Your task to perform on an android device: turn off notifications settings in the gmail app Image 0: 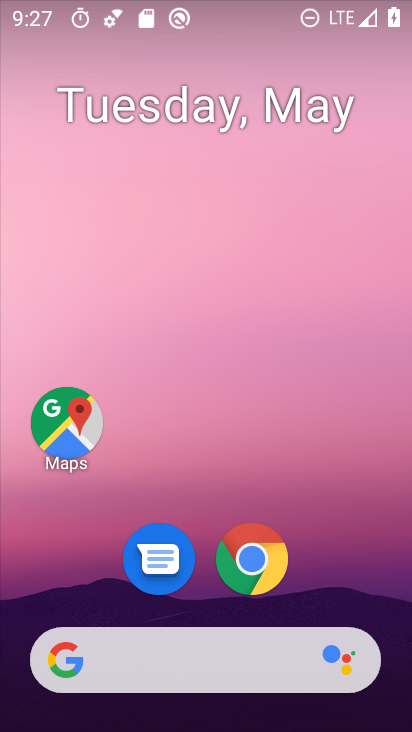
Step 0: drag from (395, 645) to (341, 49)
Your task to perform on an android device: turn off notifications settings in the gmail app Image 1: 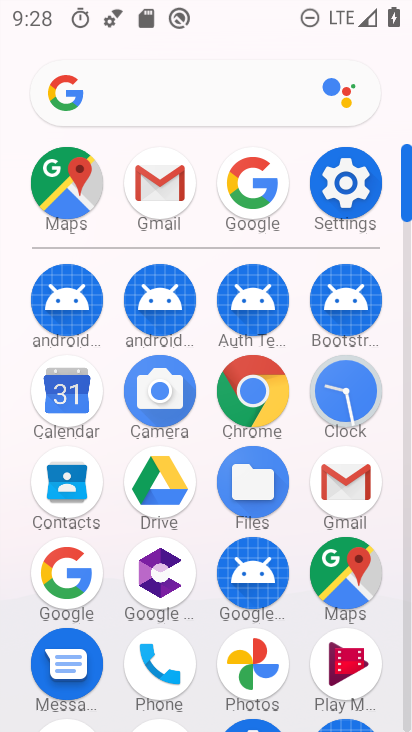
Step 1: click (324, 497)
Your task to perform on an android device: turn off notifications settings in the gmail app Image 2: 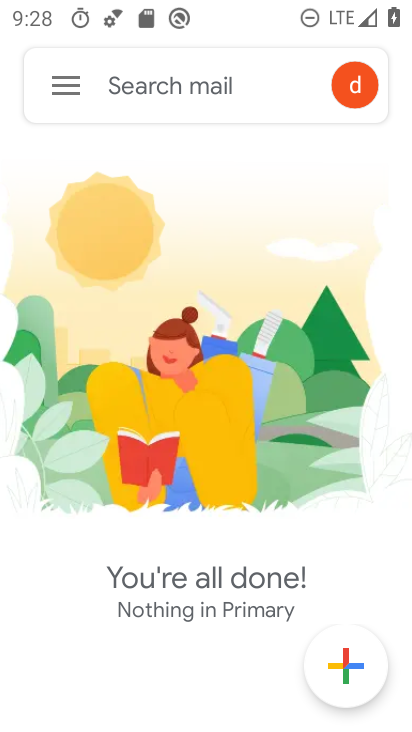
Step 2: click (57, 79)
Your task to perform on an android device: turn off notifications settings in the gmail app Image 3: 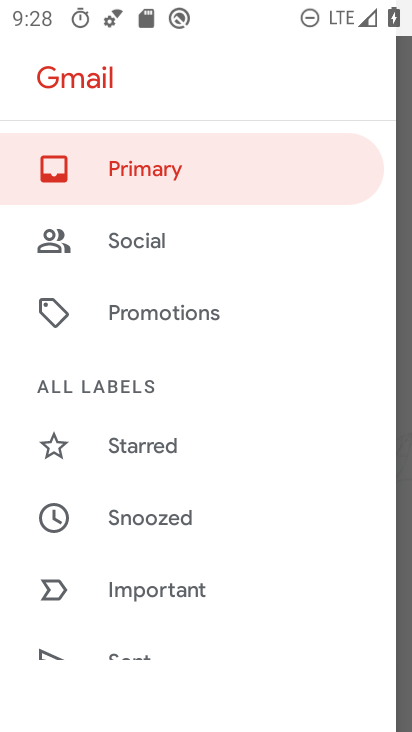
Step 3: drag from (198, 613) to (213, 13)
Your task to perform on an android device: turn off notifications settings in the gmail app Image 4: 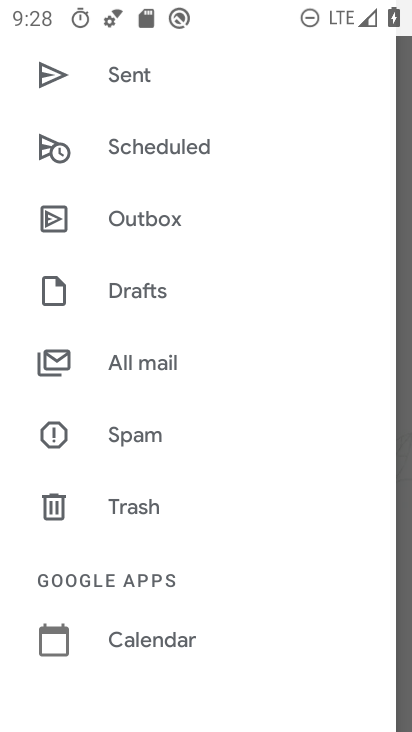
Step 4: drag from (190, 617) to (139, 8)
Your task to perform on an android device: turn off notifications settings in the gmail app Image 5: 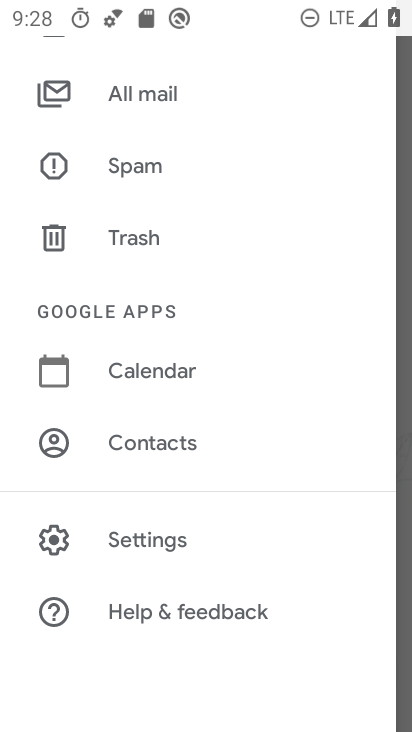
Step 5: click (159, 529)
Your task to perform on an android device: turn off notifications settings in the gmail app Image 6: 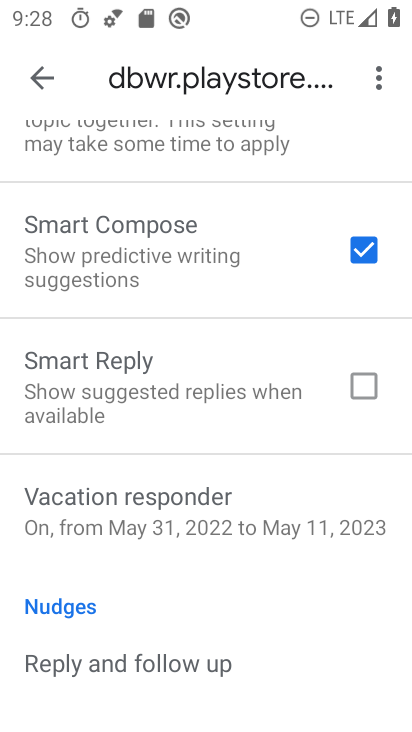
Step 6: drag from (186, 253) to (202, 678)
Your task to perform on an android device: turn off notifications settings in the gmail app Image 7: 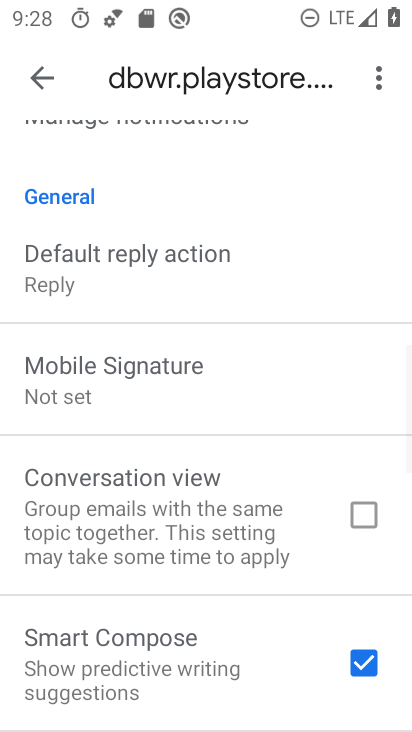
Step 7: drag from (225, 174) to (230, 568)
Your task to perform on an android device: turn off notifications settings in the gmail app Image 8: 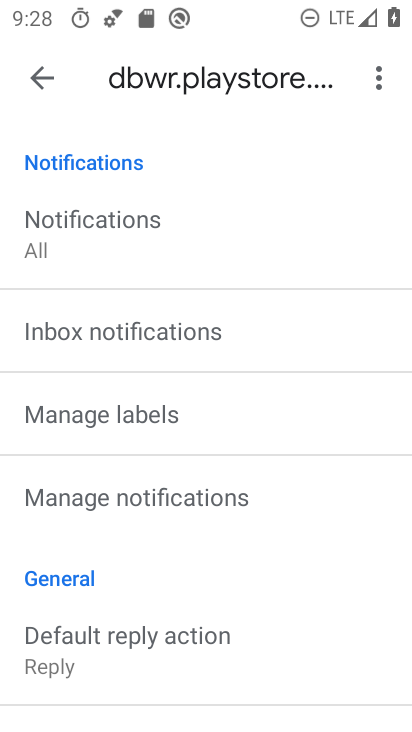
Step 8: click (153, 239)
Your task to perform on an android device: turn off notifications settings in the gmail app Image 9: 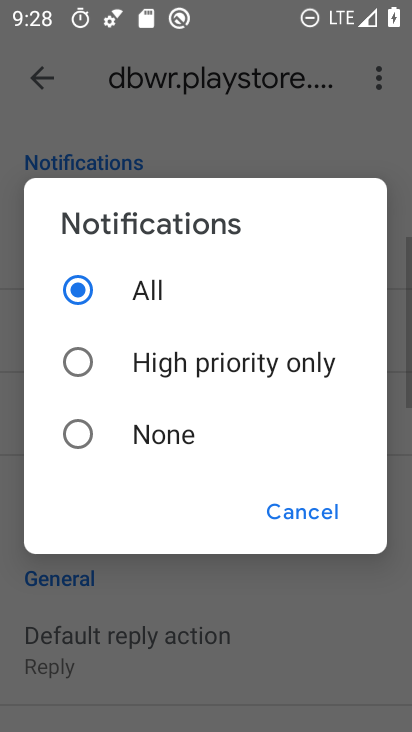
Step 9: click (85, 431)
Your task to perform on an android device: turn off notifications settings in the gmail app Image 10: 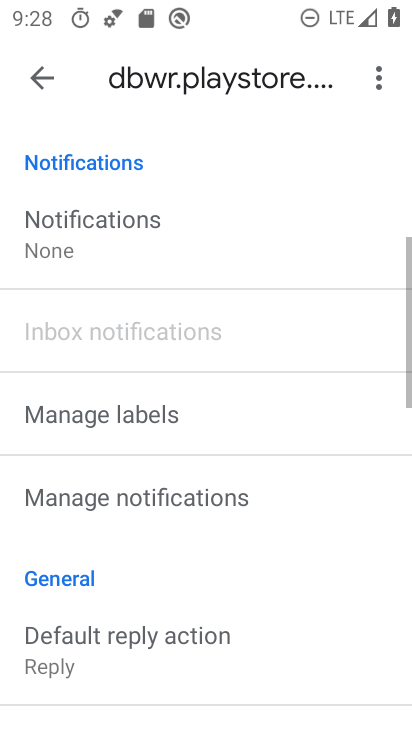
Step 10: task complete